Your task to perform on an android device: turn on improve location accuracy Image 0: 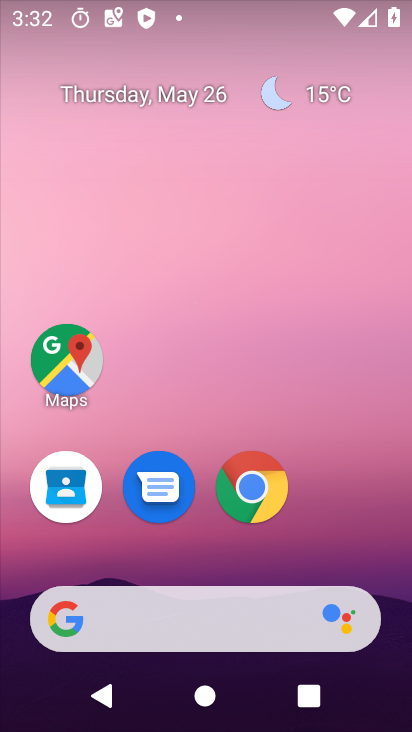
Step 0: drag from (210, 555) to (217, 205)
Your task to perform on an android device: turn on improve location accuracy Image 1: 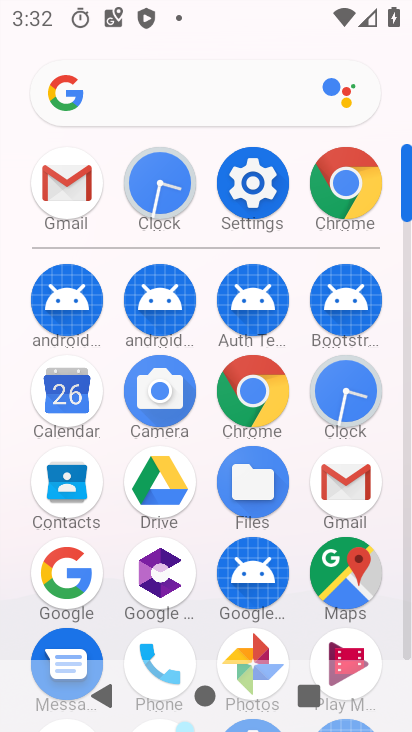
Step 1: click (248, 200)
Your task to perform on an android device: turn on improve location accuracy Image 2: 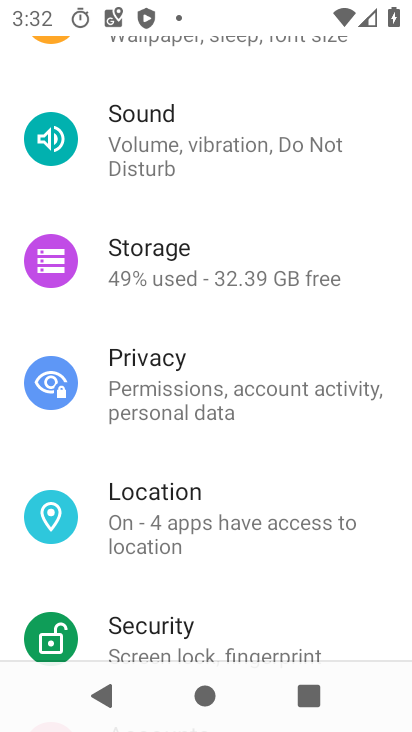
Step 2: click (196, 494)
Your task to perform on an android device: turn on improve location accuracy Image 3: 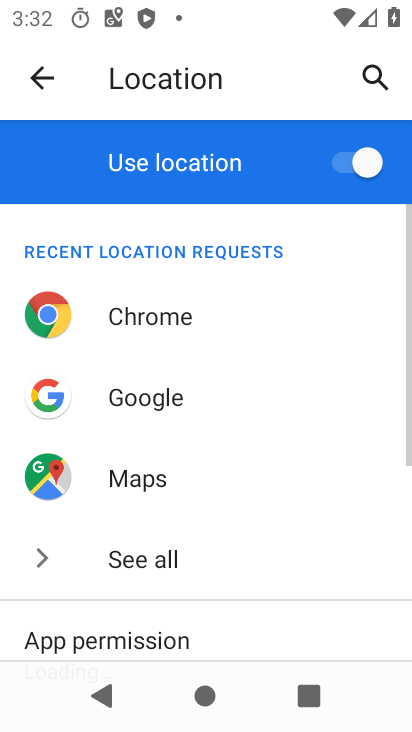
Step 3: drag from (250, 619) to (252, 352)
Your task to perform on an android device: turn on improve location accuracy Image 4: 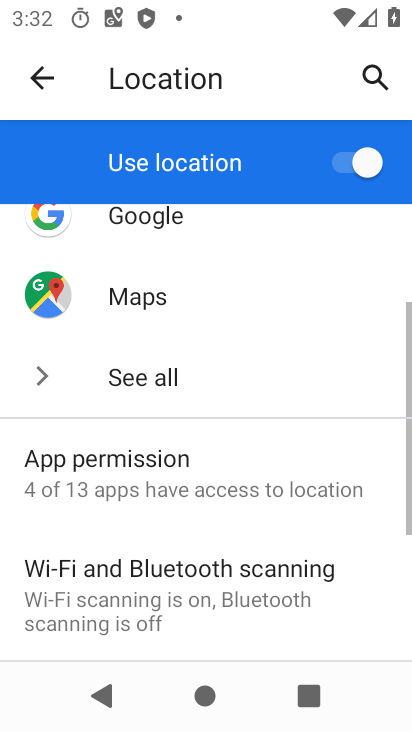
Step 4: drag from (250, 515) to (273, 282)
Your task to perform on an android device: turn on improve location accuracy Image 5: 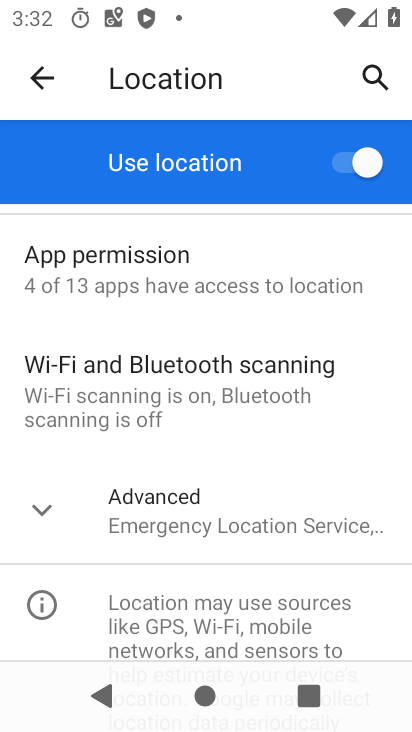
Step 5: click (211, 492)
Your task to perform on an android device: turn on improve location accuracy Image 6: 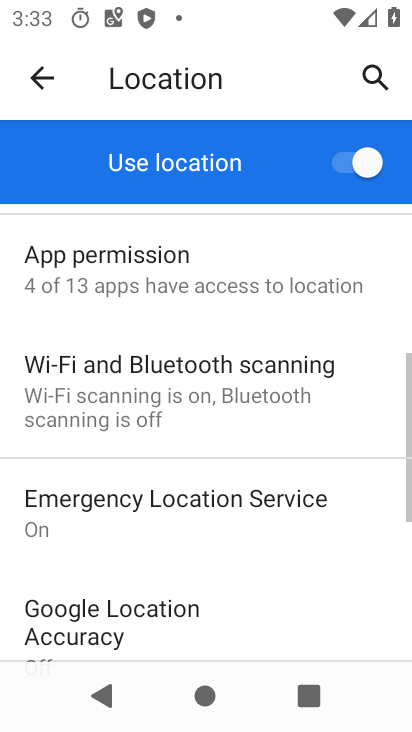
Step 6: drag from (203, 585) to (244, 358)
Your task to perform on an android device: turn on improve location accuracy Image 7: 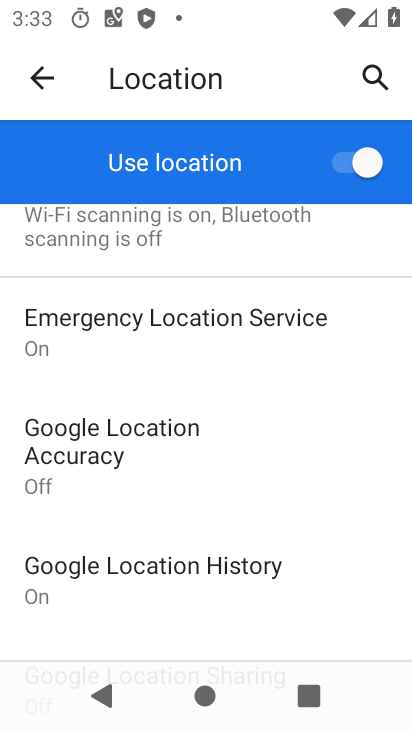
Step 7: click (151, 428)
Your task to perform on an android device: turn on improve location accuracy Image 8: 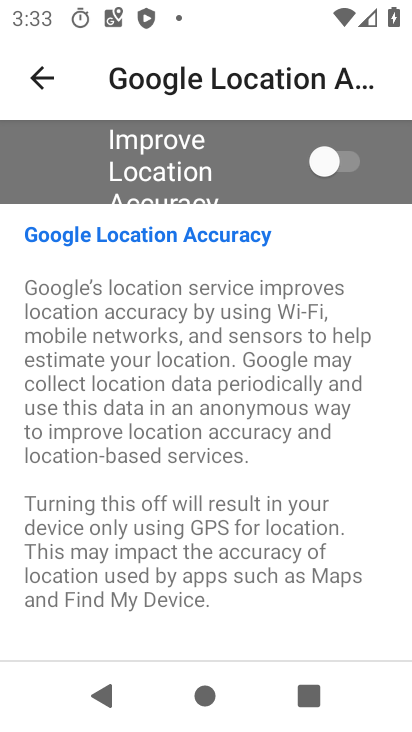
Step 8: click (339, 147)
Your task to perform on an android device: turn on improve location accuracy Image 9: 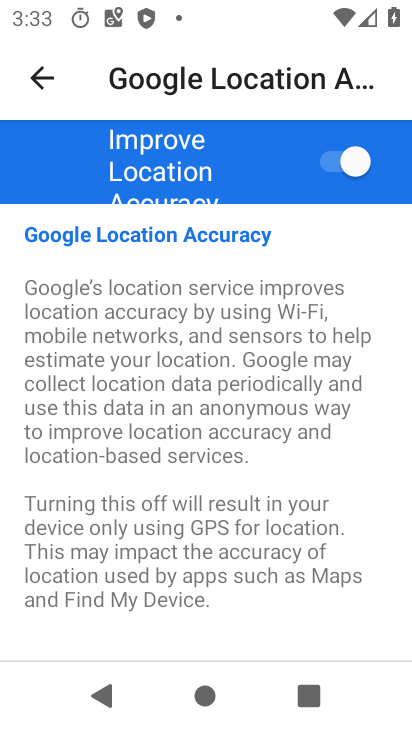
Step 9: task complete